Your task to perform on an android device: manage bookmarks in the chrome app Image 0: 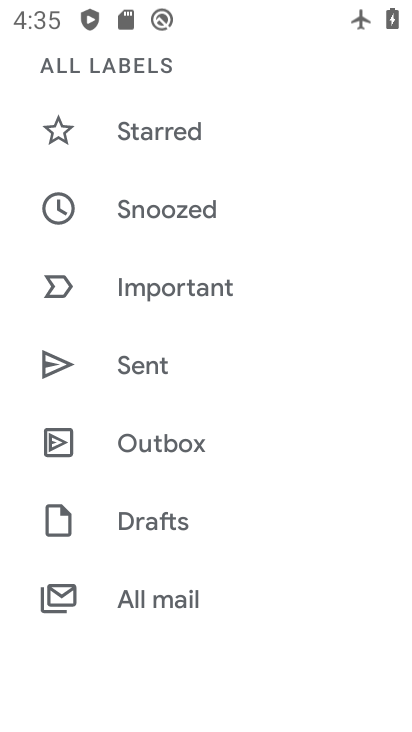
Step 0: press home button
Your task to perform on an android device: manage bookmarks in the chrome app Image 1: 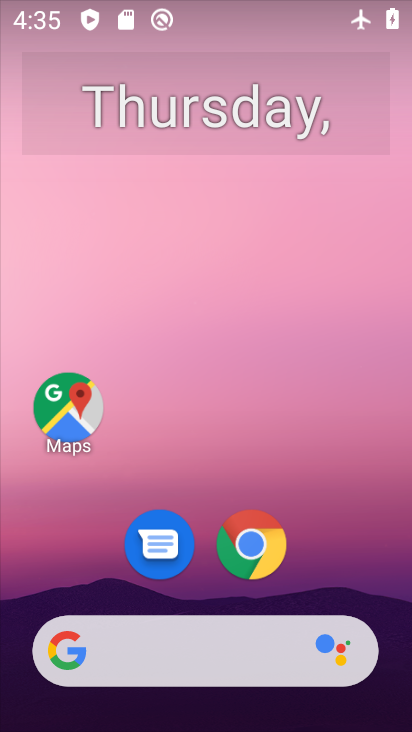
Step 1: click (253, 533)
Your task to perform on an android device: manage bookmarks in the chrome app Image 2: 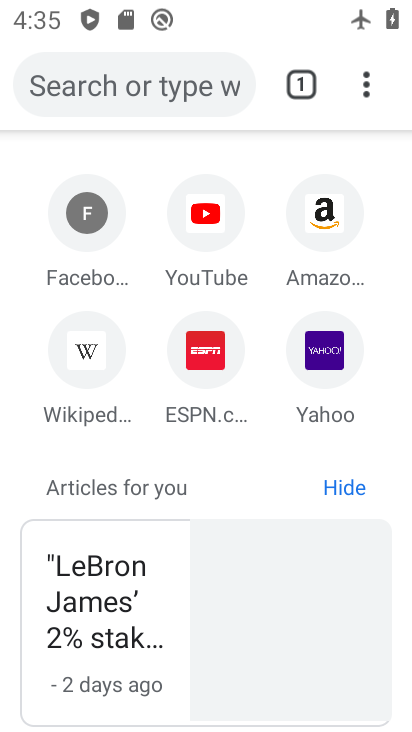
Step 2: click (365, 90)
Your task to perform on an android device: manage bookmarks in the chrome app Image 3: 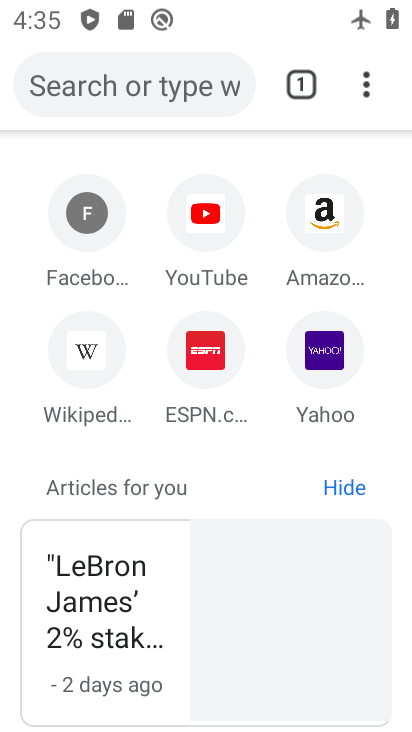
Step 3: click (365, 90)
Your task to perform on an android device: manage bookmarks in the chrome app Image 4: 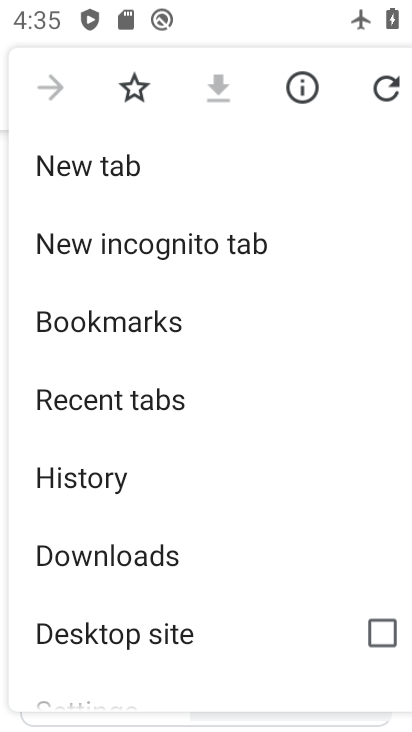
Step 4: click (111, 318)
Your task to perform on an android device: manage bookmarks in the chrome app Image 5: 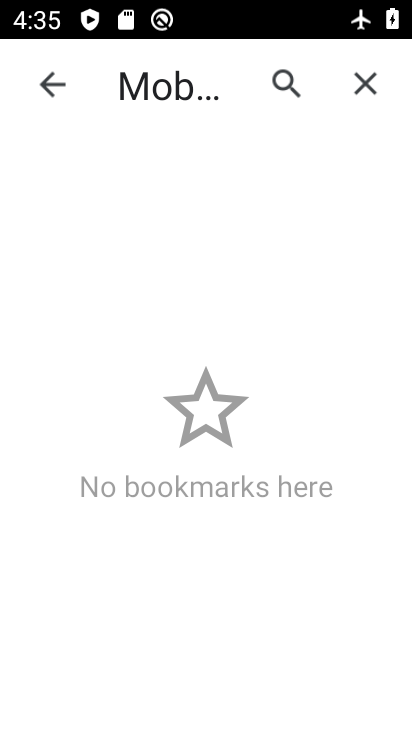
Step 5: task complete